Your task to perform on an android device: View the shopping cart on walmart.com. Search for "energizer triple a" on walmart.com, select the first entry, and add it to the cart. Image 0: 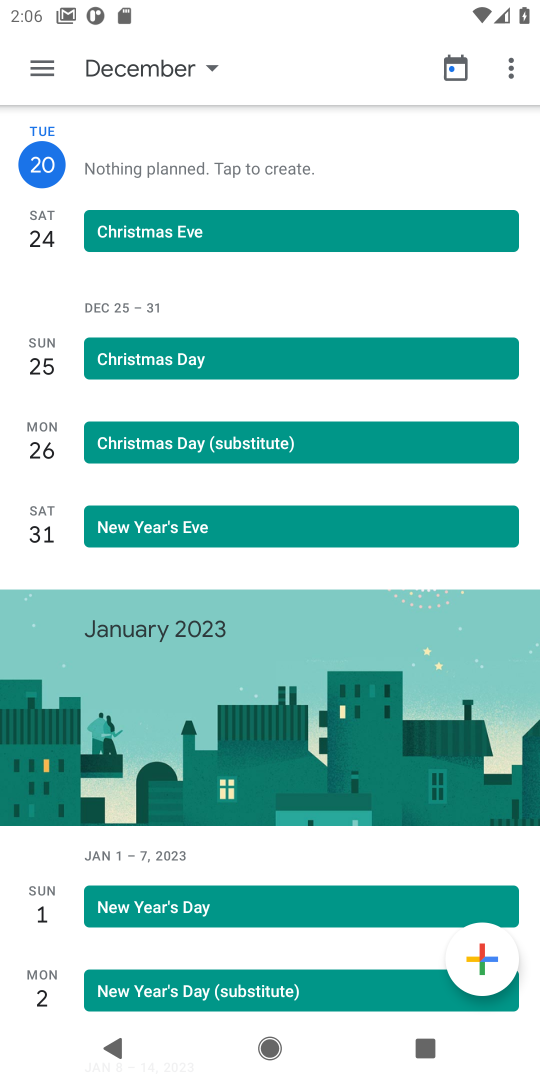
Step 0: press home button
Your task to perform on an android device: View the shopping cart on walmart.com. Search for "energizer triple a" on walmart.com, select the first entry, and add it to the cart. Image 1: 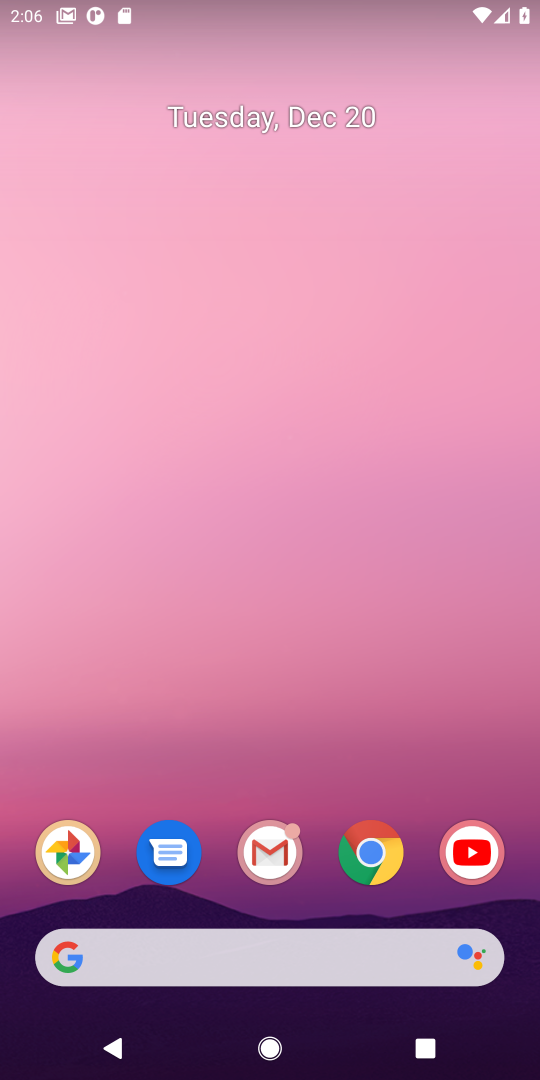
Step 1: click (371, 856)
Your task to perform on an android device: View the shopping cart on walmart.com. Search for "energizer triple a" on walmart.com, select the first entry, and add it to the cart. Image 2: 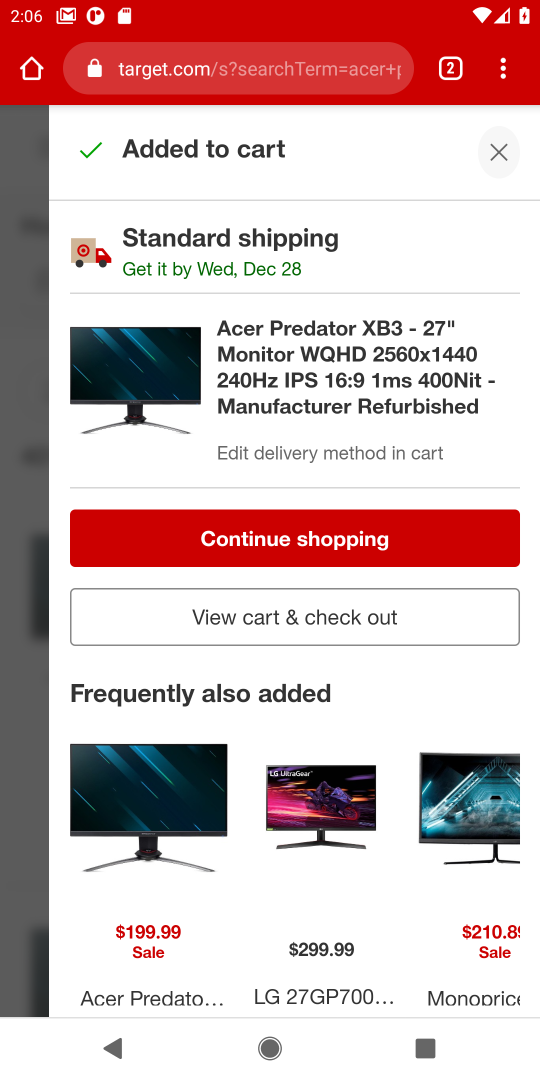
Step 2: click (183, 75)
Your task to perform on an android device: View the shopping cart on walmart.com. Search for "energizer triple a" on walmart.com, select the first entry, and add it to the cart. Image 3: 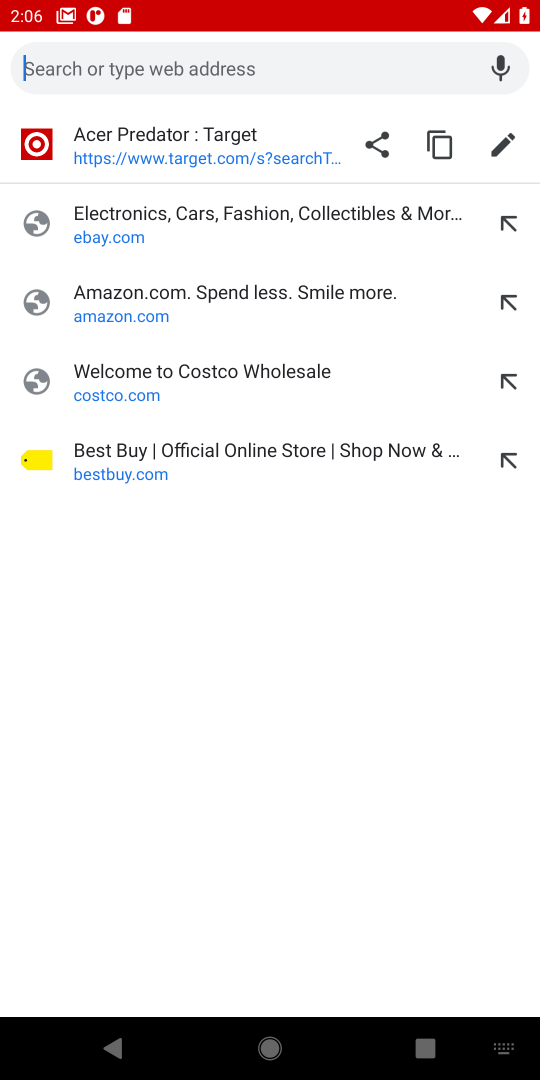
Step 3: type "walmart.com"
Your task to perform on an android device: View the shopping cart on walmart.com. Search for "energizer triple a" on walmart.com, select the first entry, and add it to the cart. Image 4: 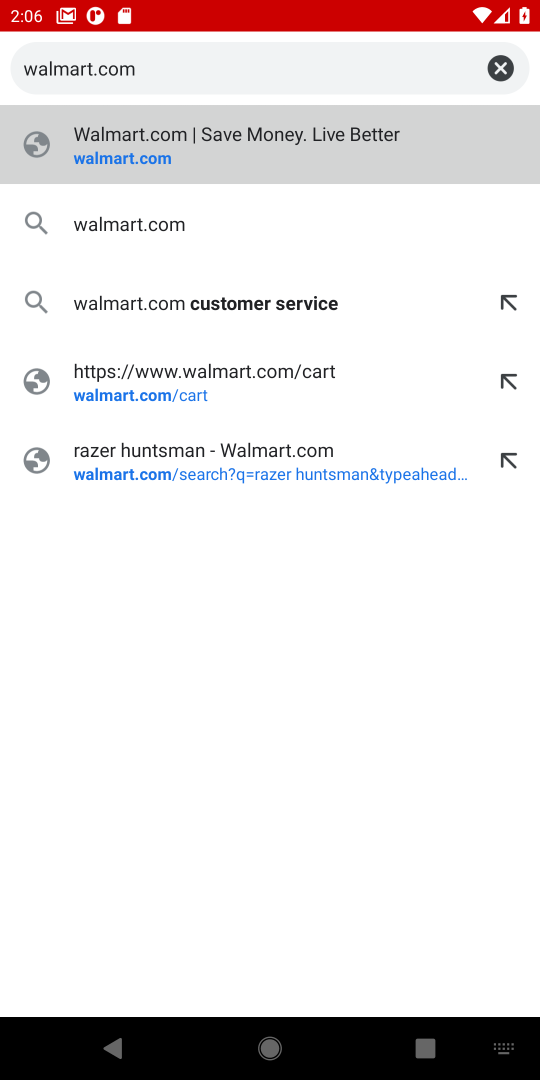
Step 4: click (134, 161)
Your task to perform on an android device: View the shopping cart on walmart.com. Search for "energizer triple a" on walmart.com, select the first entry, and add it to the cart. Image 5: 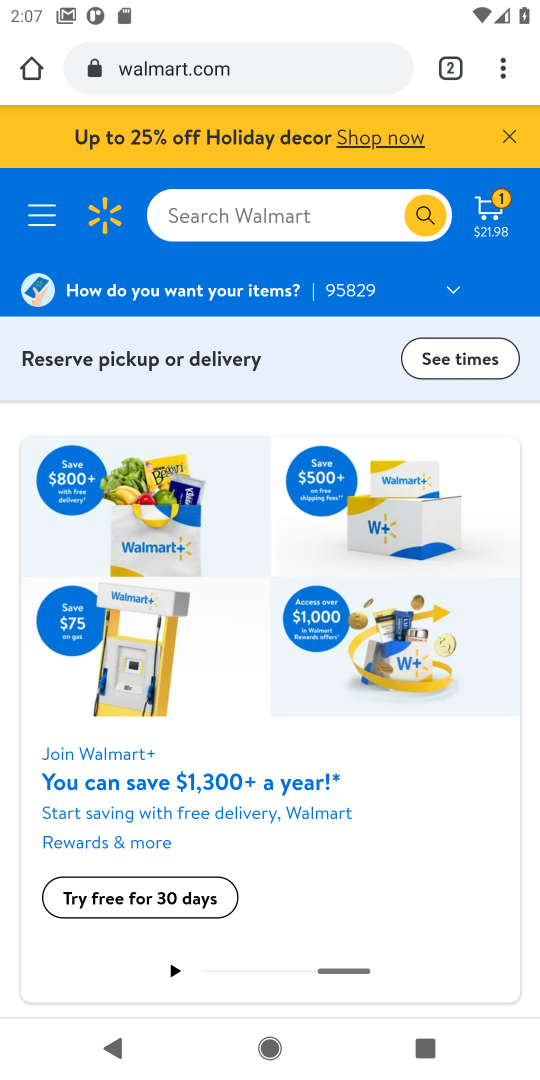
Step 5: click (491, 212)
Your task to perform on an android device: View the shopping cart on walmart.com. Search for "energizer triple a" on walmart.com, select the first entry, and add it to the cart. Image 6: 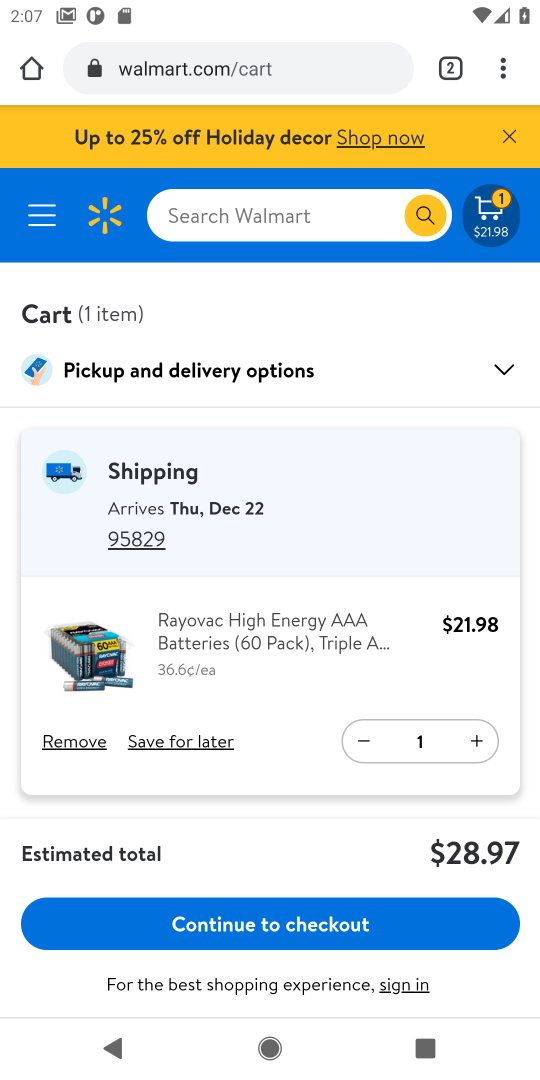
Step 6: click (218, 222)
Your task to perform on an android device: View the shopping cart on walmart.com. Search for "energizer triple a" on walmart.com, select the first entry, and add it to the cart. Image 7: 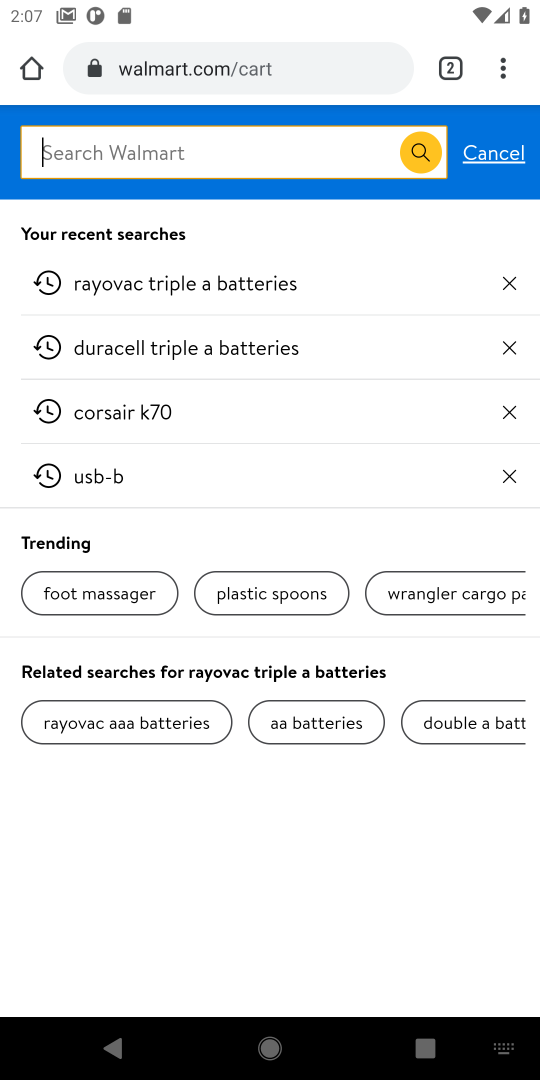
Step 7: type "energizer triple a"
Your task to perform on an android device: View the shopping cart on walmart.com. Search for "energizer triple a" on walmart.com, select the first entry, and add it to the cart. Image 8: 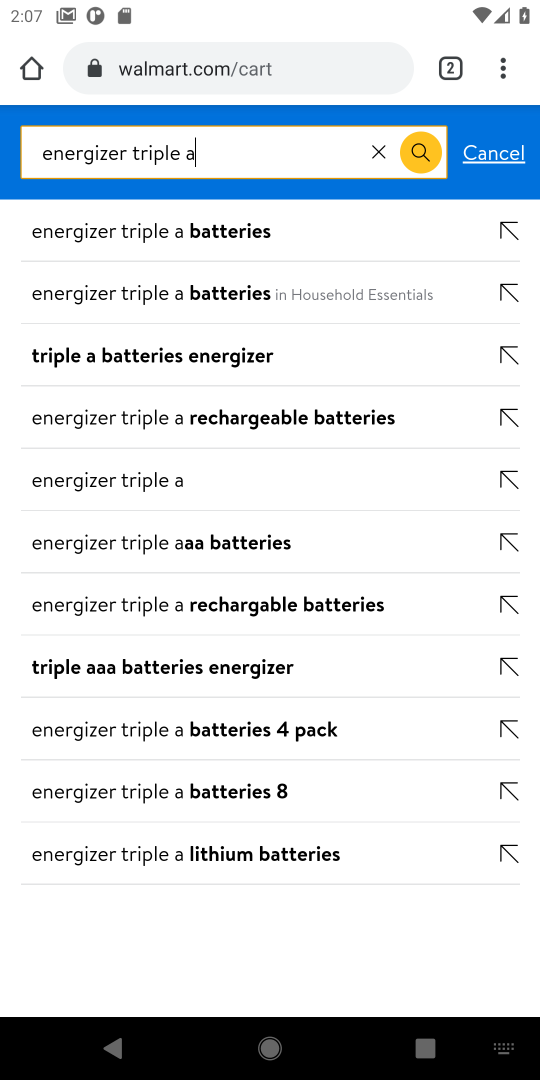
Step 8: click (152, 237)
Your task to perform on an android device: View the shopping cart on walmart.com. Search for "energizer triple a" on walmart.com, select the first entry, and add it to the cart. Image 9: 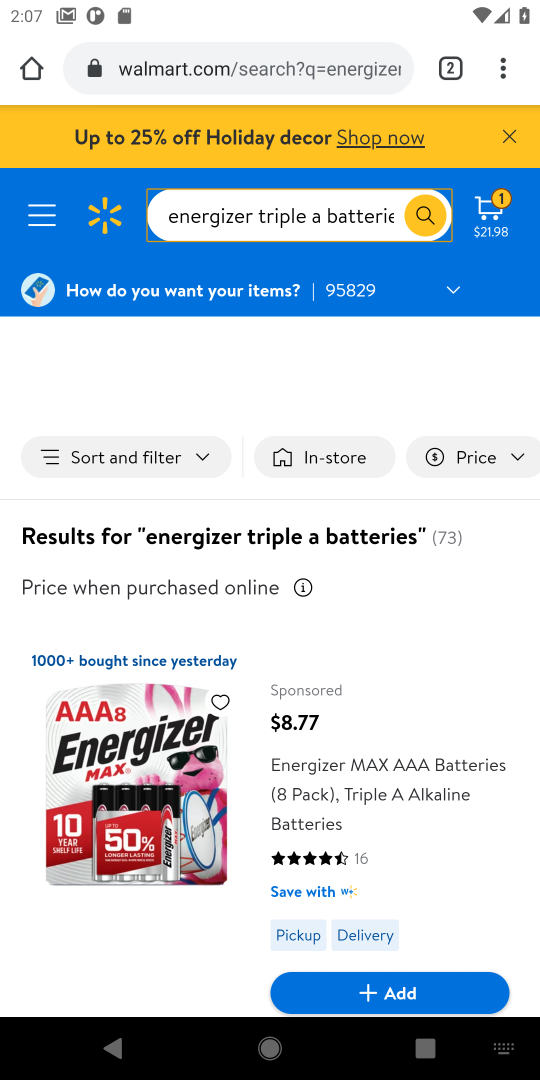
Step 9: drag from (263, 615) to (270, 396)
Your task to perform on an android device: View the shopping cart on walmart.com. Search for "energizer triple a" on walmart.com, select the first entry, and add it to the cart. Image 10: 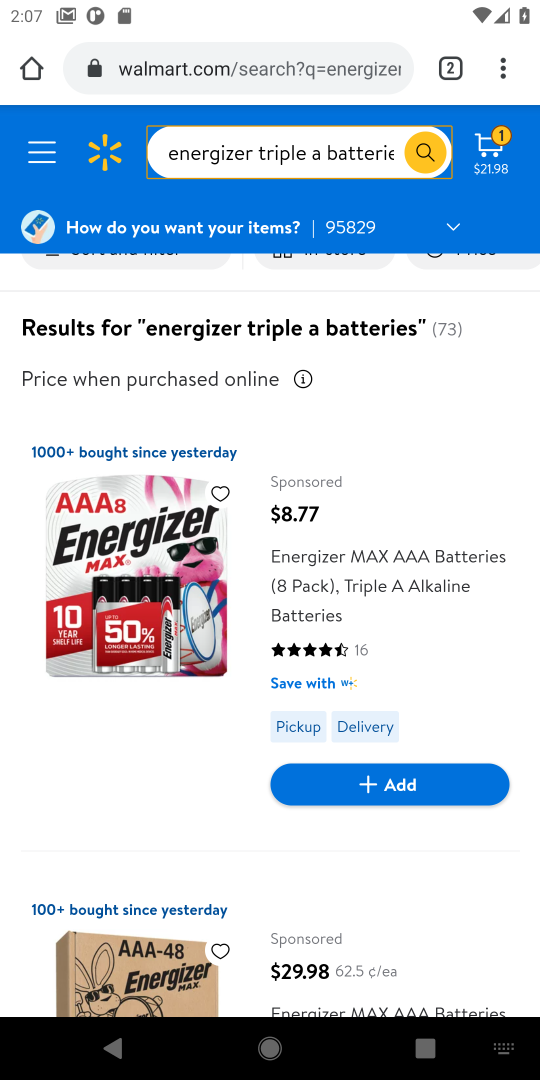
Step 10: click (405, 788)
Your task to perform on an android device: View the shopping cart on walmart.com. Search for "energizer triple a" on walmart.com, select the first entry, and add it to the cart. Image 11: 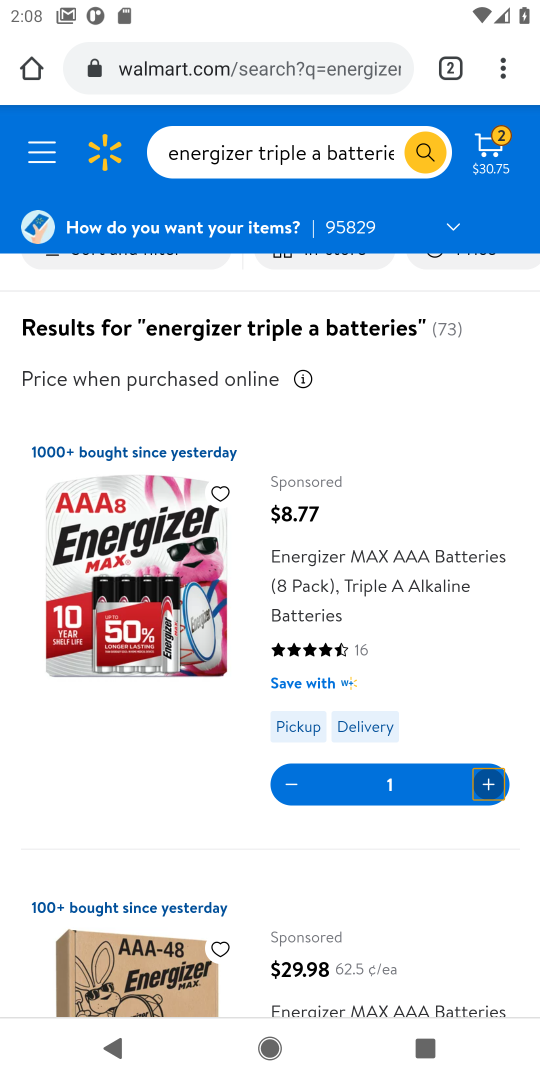
Step 11: task complete